Your task to perform on an android device: Go to location settings Image 0: 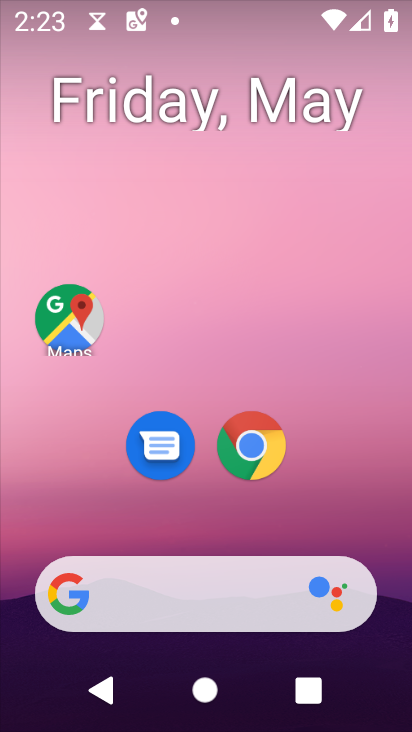
Step 0: drag from (198, 503) to (230, 144)
Your task to perform on an android device: Go to location settings Image 1: 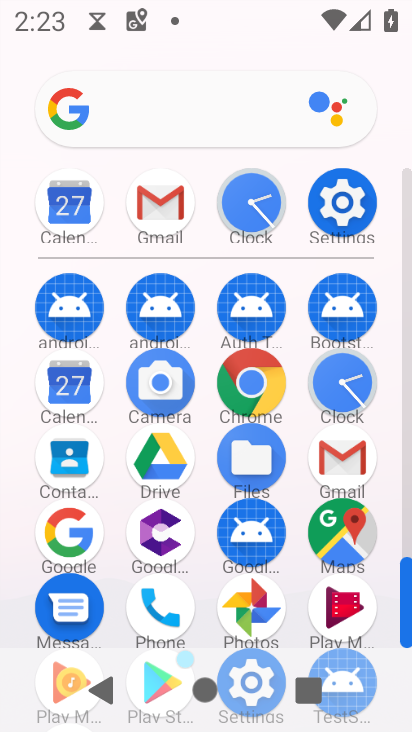
Step 1: click (342, 192)
Your task to perform on an android device: Go to location settings Image 2: 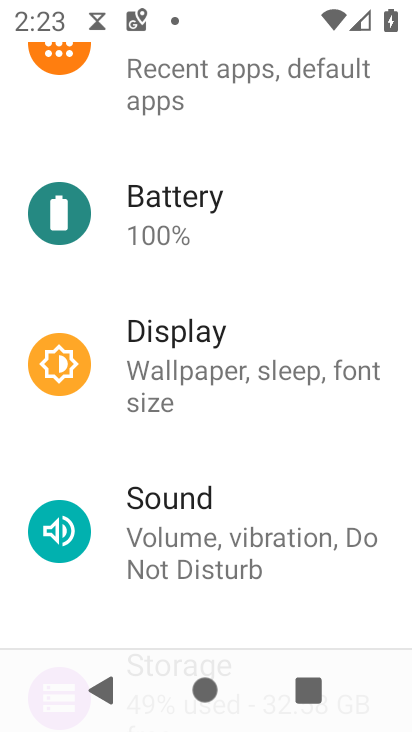
Step 2: drag from (222, 565) to (247, 87)
Your task to perform on an android device: Go to location settings Image 3: 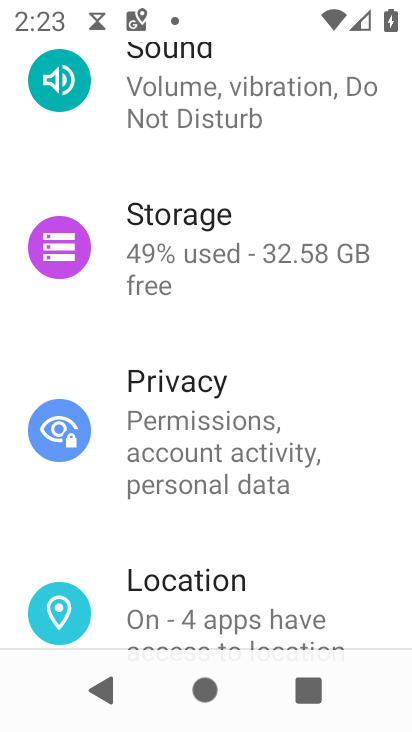
Step 3: click (252, 574)
Your task to perform on an android device: Go to location settings Image 4: 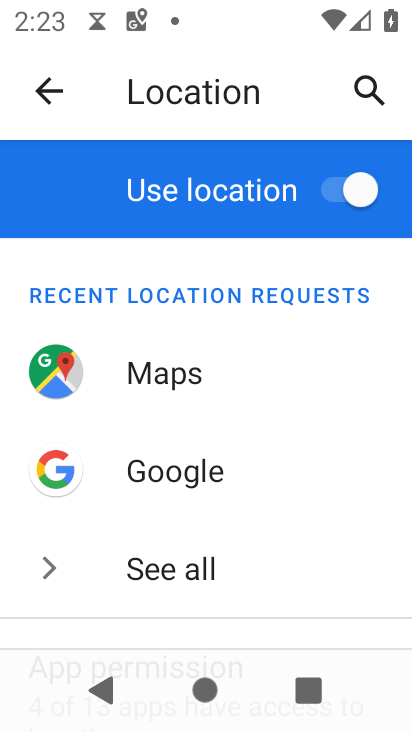
Step 4: drag from (244, 487) to (253, 302)
Your task to perform on an android device: Go to location settings Image 5: 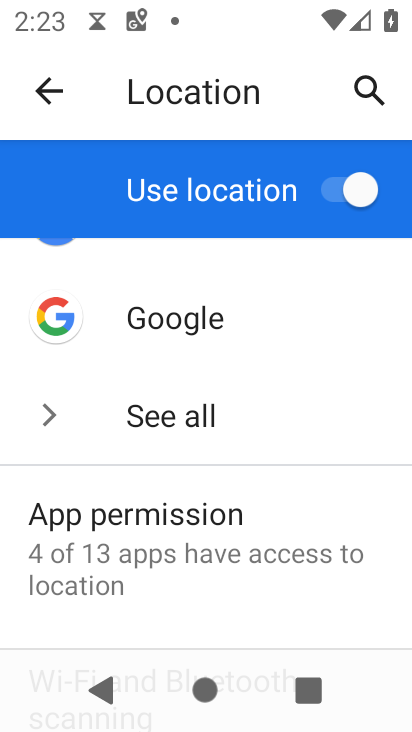
Step 5: drag from (251, 516) to (290, 311)
Your task to perform on an android device: Go to location settings Image 6: 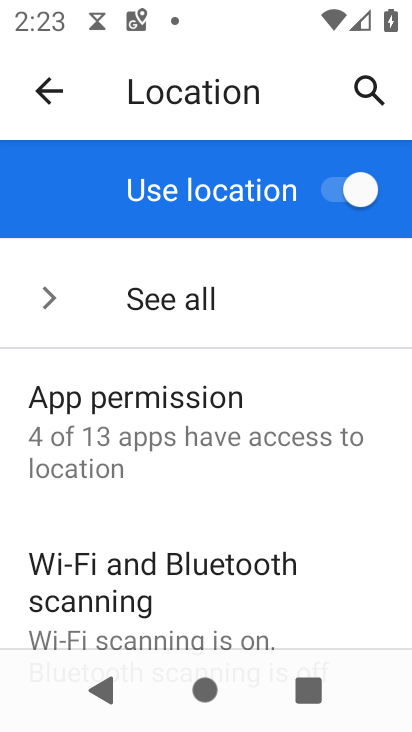
Step 6: drag from (253, 630) to (294, 297)
Your task to perform on an android device: Go to location settings Image 7: 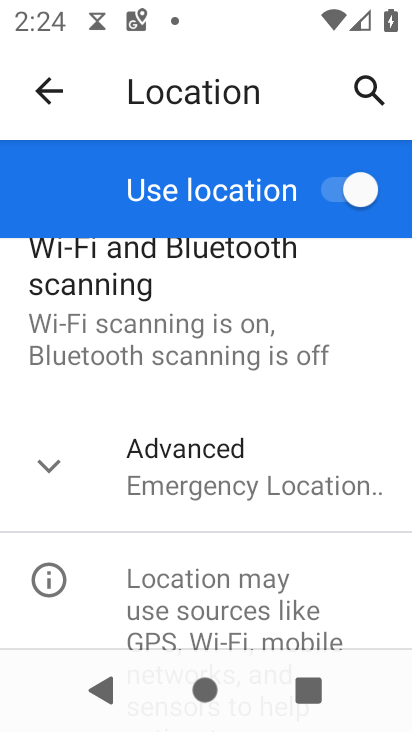
Step 7: click (40, 451)
Your task to perform on an android device: Go to location settings Image 8: 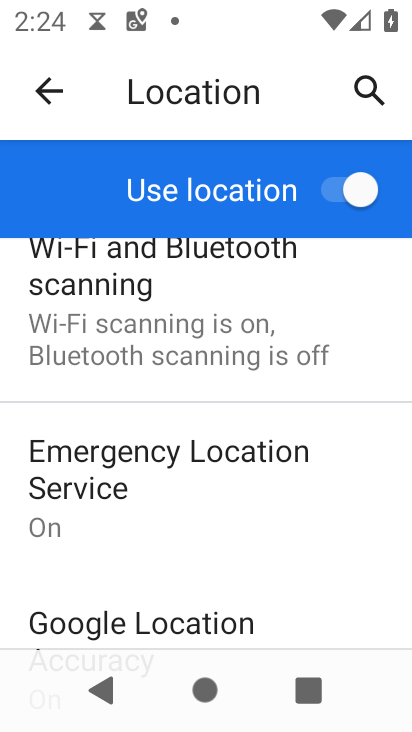
Step 8: task complete